Your task to perform on an android device: toggle translation in the chrome app Image 0: 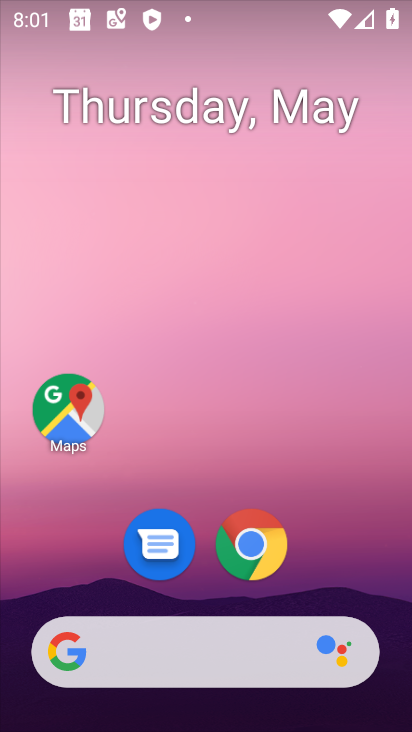
Step 0: press home button
Your task to perform on an android device: toggle translation in the chrome app Image 1: 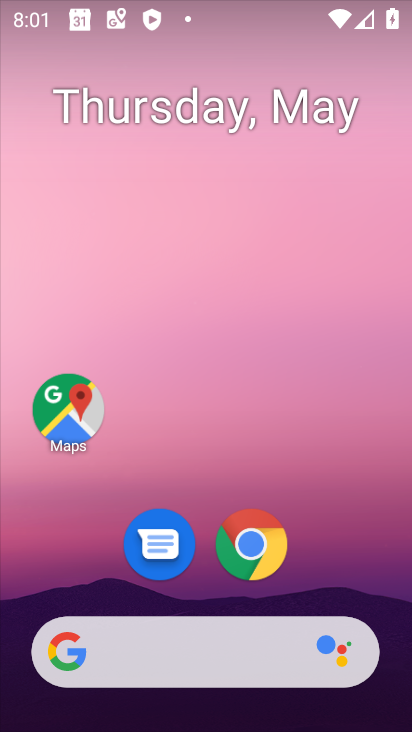
Step 1: click (277, 550)
Your task to perform on an android device: toggle translation in the chrome app Image 2: 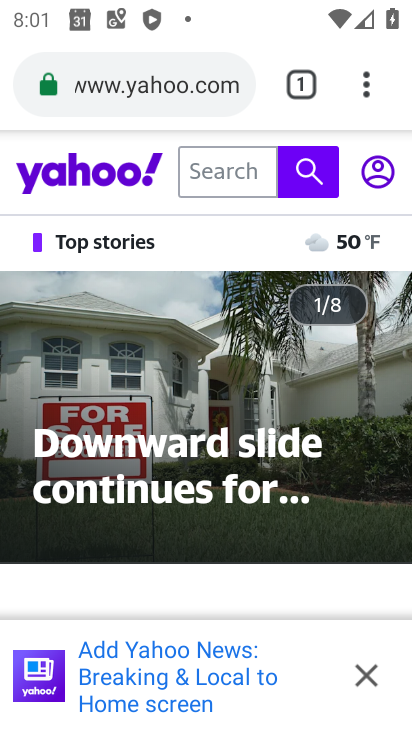
Step 2: drag from (369, 69) to (146, 592)
Your task to perform on an android device: toggle translation in the chrome app Image 3: 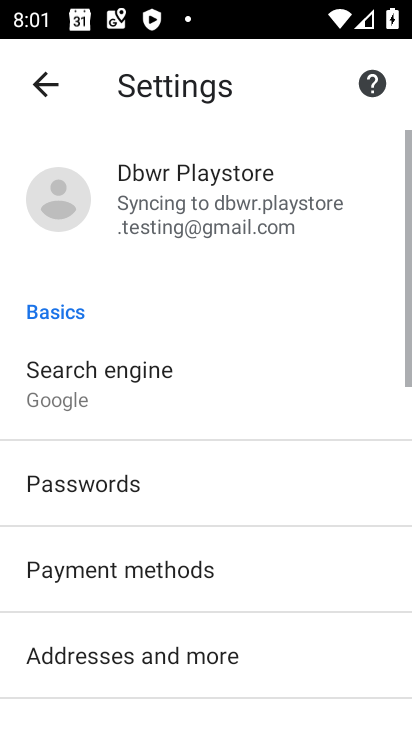
Step 3: drag from (207, 589) to (274, 150)
Your task to perform on an android device: toggle translation in the chrome app Image 4: 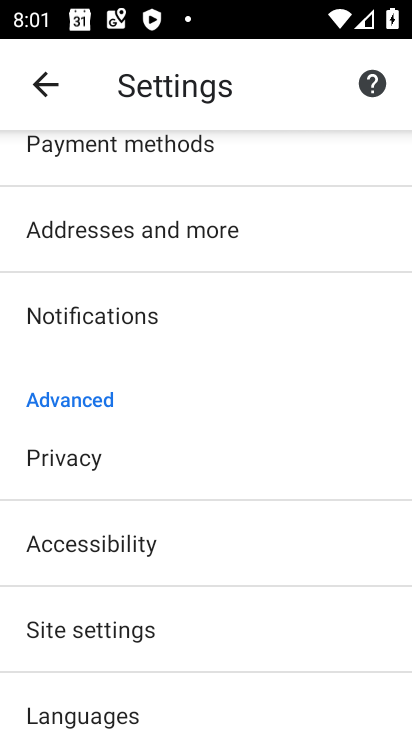
Step 4: click (148, 696)
Your task to perform on an android device: toggle translation in the chrome app Image 5: 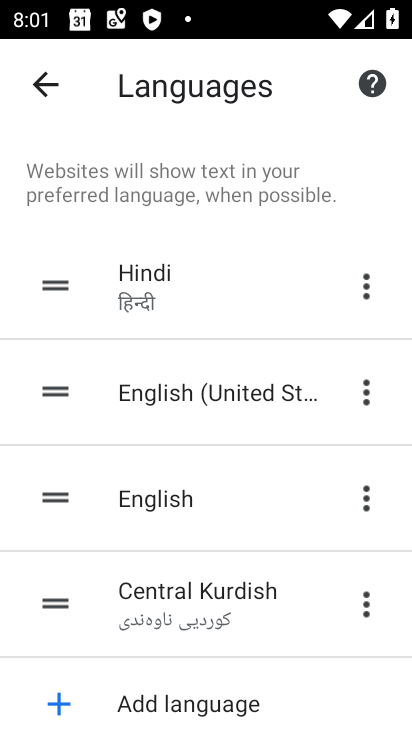
Step 5: drag from (269, 576) to (346, 172)
Your task to perform on an android device: toggle translation in the chrome app Image 6: 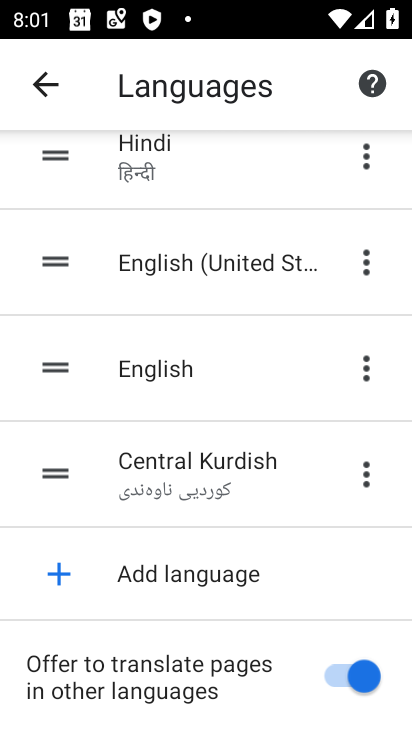
Step 6: click (328, 684)
Your task to perform on an android device: toggle translation in the chrome app Image 7: 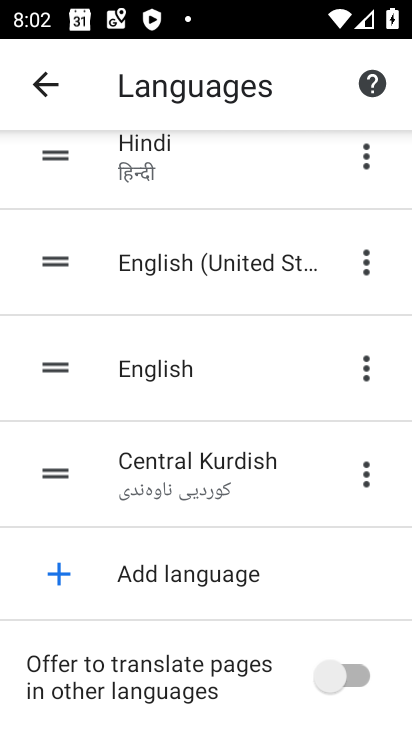
Step 7: task complete